Your task to perform on an android device: toggle javascript in the chrome app Image 0: 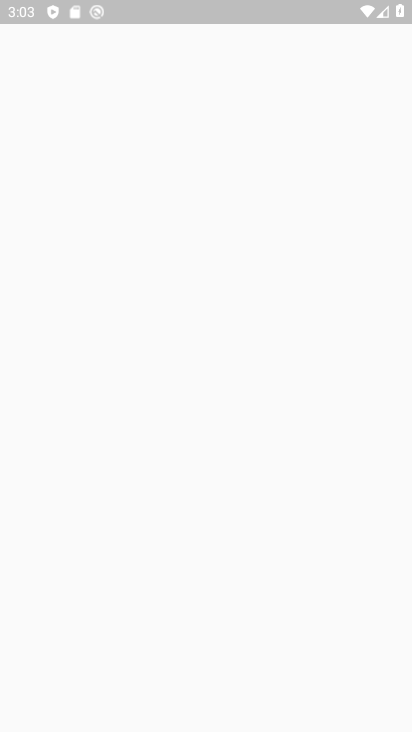
Step 0: press home button
Your task to perform on an android device: toggle javascript in the chrome app Image 1: 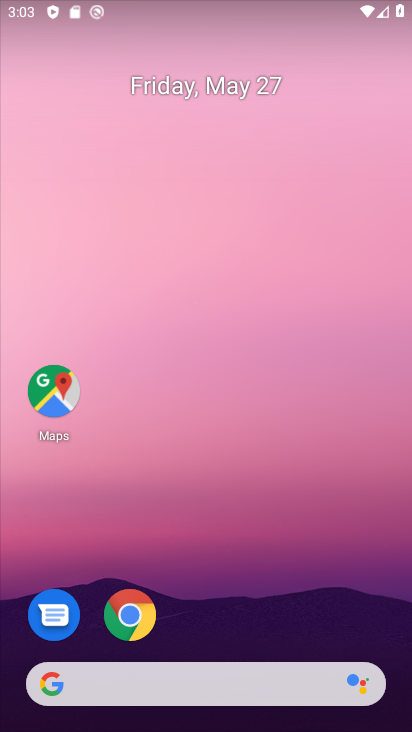
Step 1: click (121, 623)
Your task to perform on an android device: toggle javascript in the chrome app Image 2: 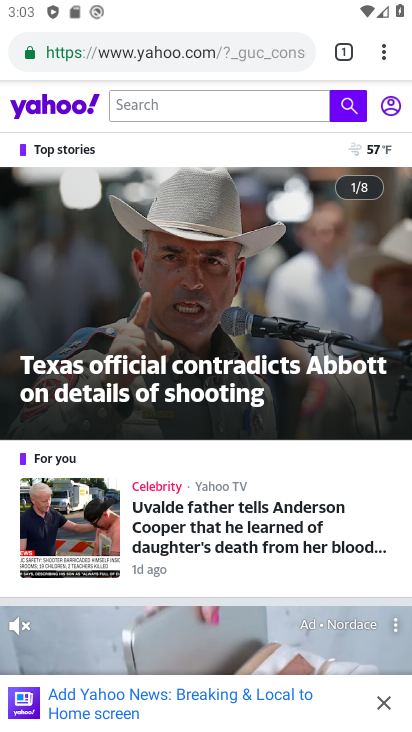
Step 2: click (378, 50)
Your task to perform on an android device: toggle javascript in the chrome app Image 3: 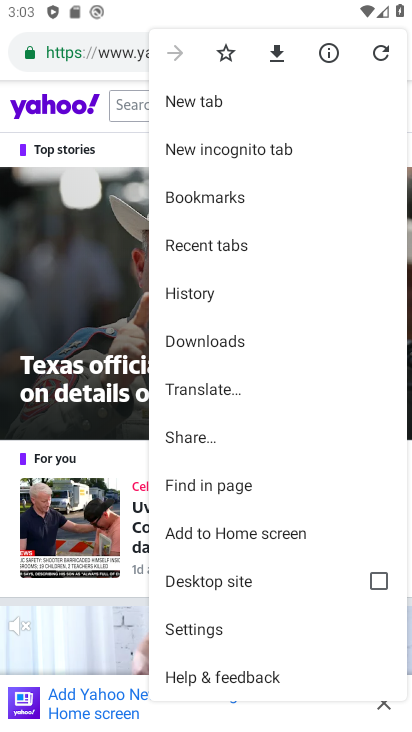
Step 3: click (222, 634)
Your task to perform on an android device: toggle javascript in the chrome app Image 4: 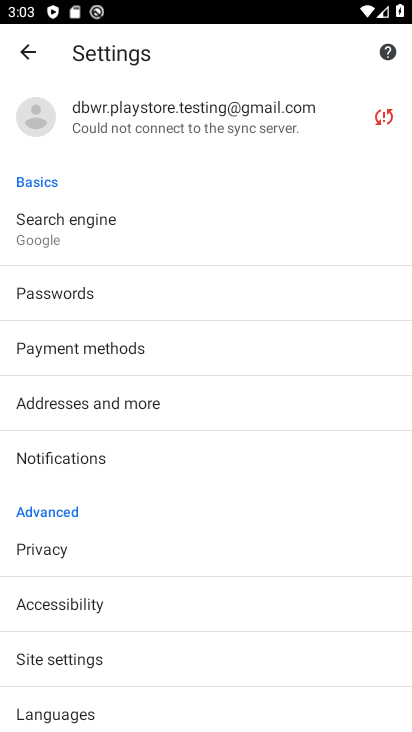
Step 4: drag from (241, 620) to (242, 267)
Your task to perform on an android device: toggle javascript in the chrome app Image 5: 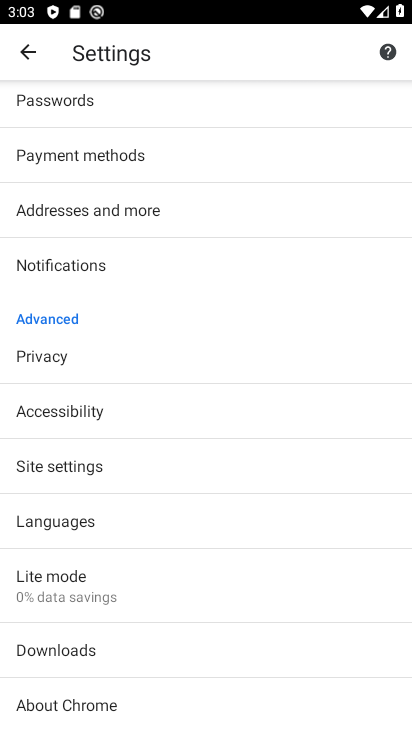
Step 5: click (75, 470)
Your task to perform on an android device: toggle javascript in the chrome app Image 6: 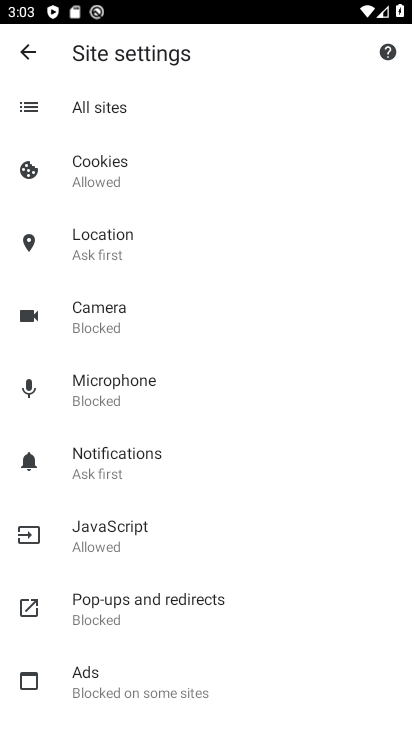
Step 6: click (73, 543)
Your task to perform on an android device: toggle javascript in the chrome app Image 7: 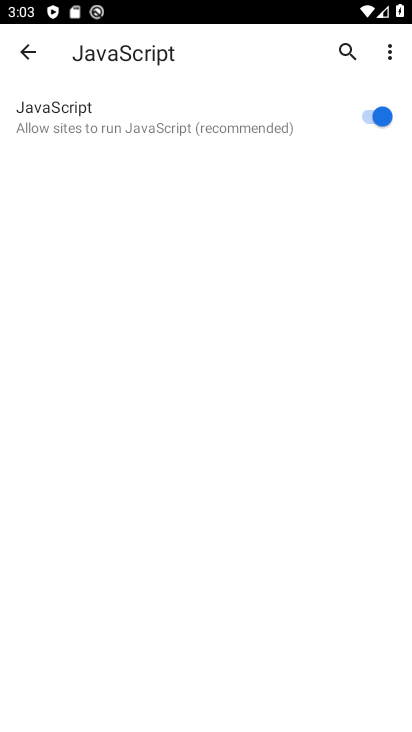
Step 7: click (373, 117)
Your task to perform on an android device: toggle javascript in the chrome app Image 8: 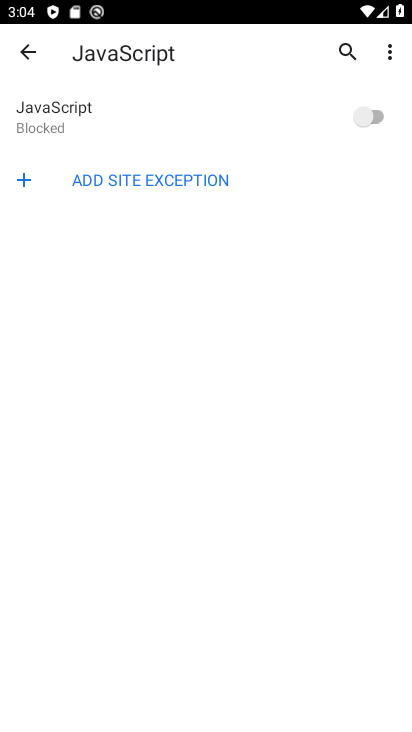
Step 8: task complete